Your task to perform on an android device: Open maps Image 0: 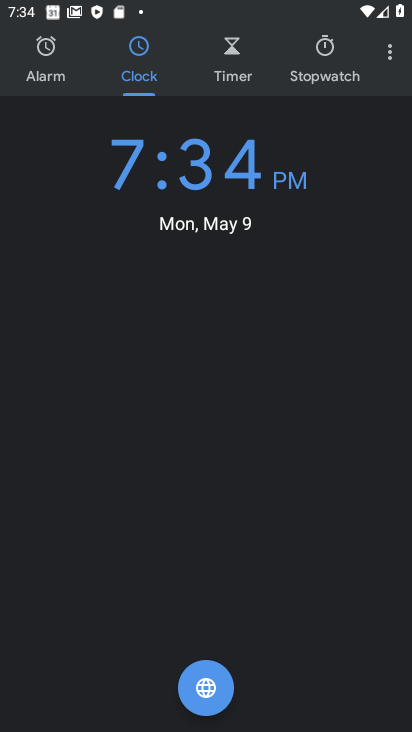
Step 0: press home button
Your task to perform on an android device: Open maps Image 1: 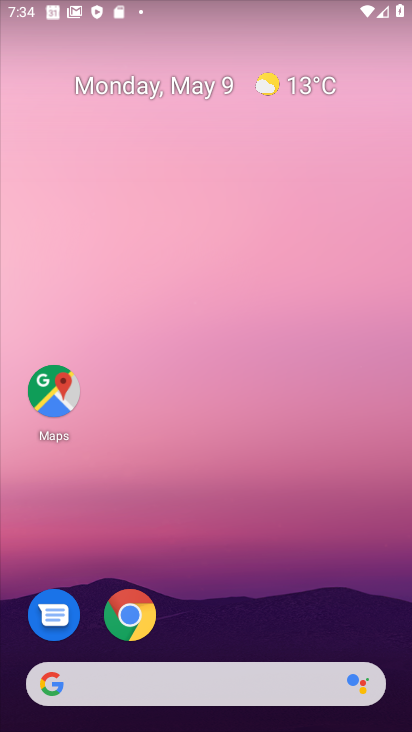
Step 1: click (74, 393)
Your task to perform on an android device: Open maps Image 2: 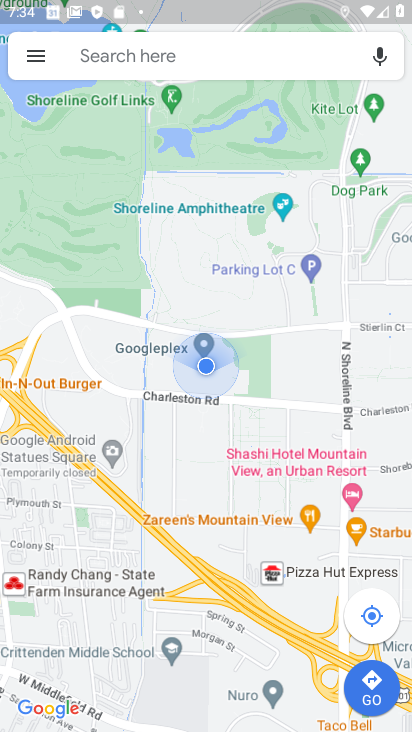
Step 2: task complete